Your task to perform on an android device: check storage Image 0: 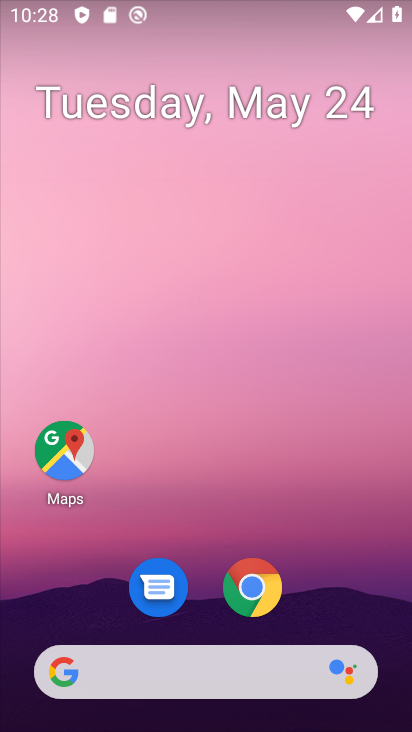
Step 0: click (344, 221)
Your task to perform on an android device: check storage Image 1: 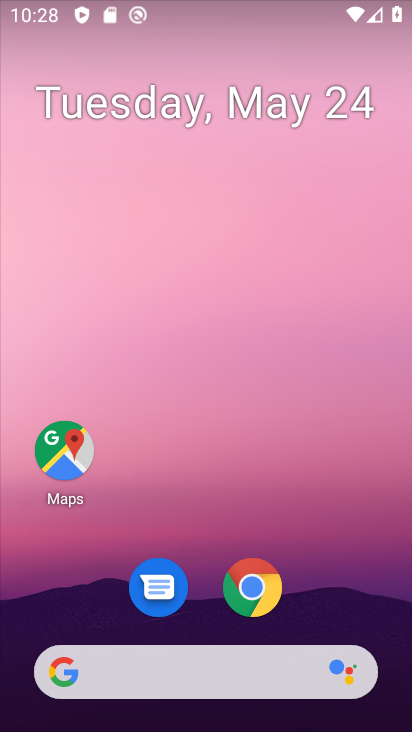
Step 1: drag from (329, 689) to (206, 121)
Your task to perform on an android device: check storage Image 2: 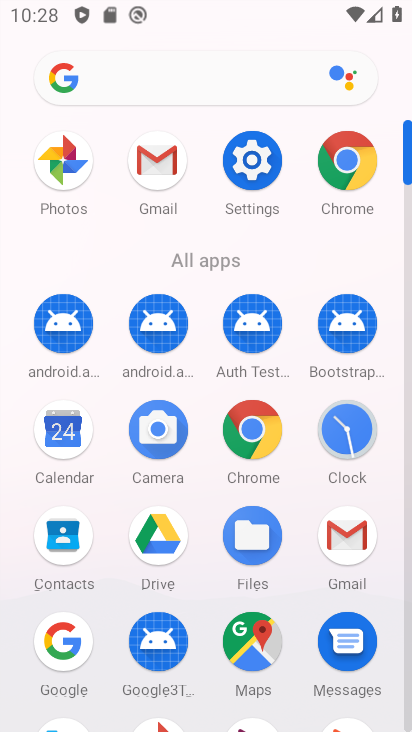
Step 2: click (249, 168)
Your task to perform on an android device: check storage Image 3: 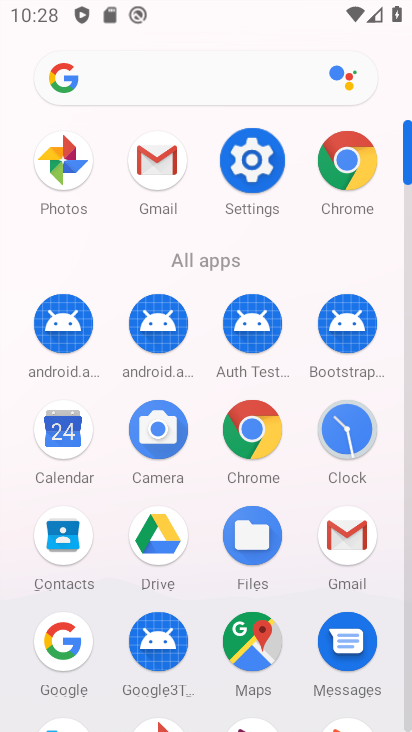
Step 3: click (251, 164)
Your task to perform on an android device: check storage Image 4: 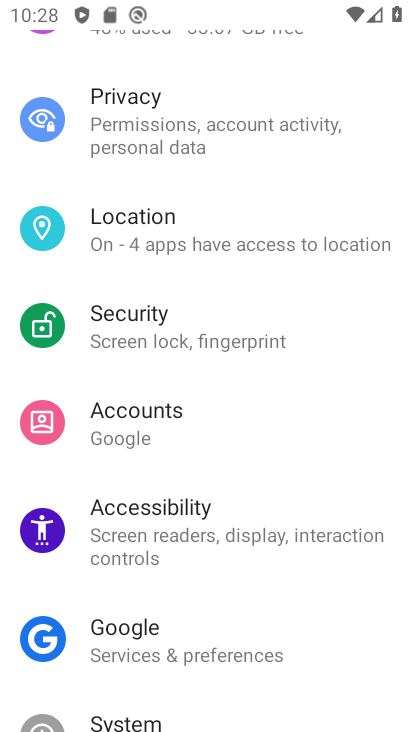
Step 4: drag from (160, 543) to (132, 255)
Your task to perform on an android device: check storage Image 5: 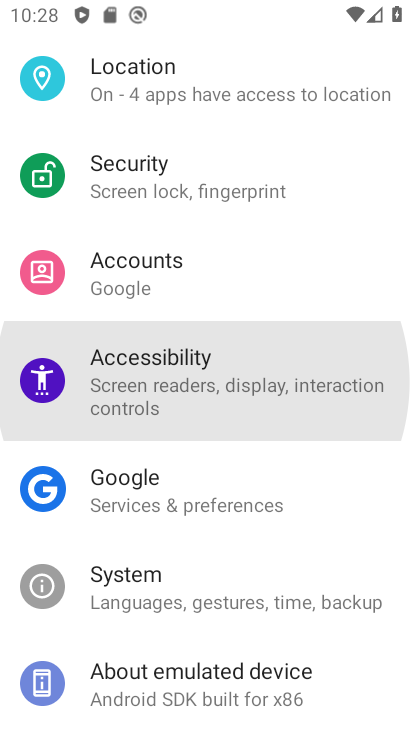
Step 5: drag from (151, 487) to (151, 267)
Your task to perform on an android device: check storage Image 6: 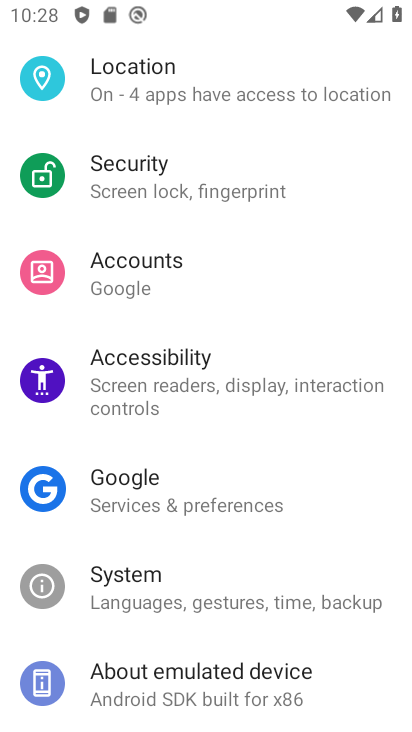
Step 6: drag from (149, 195) to (126, 579)
Your task to perform on an android device: check storage Image 7: 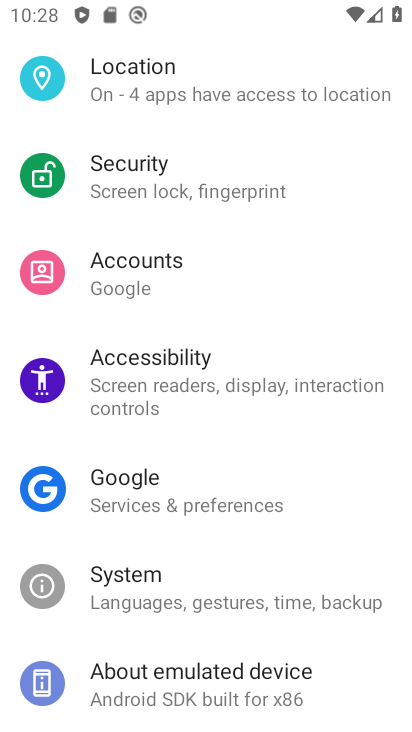
Step 7: drag from (138, 292) to (193, 628)
Your task to perform on an android device: check storage Image 8: 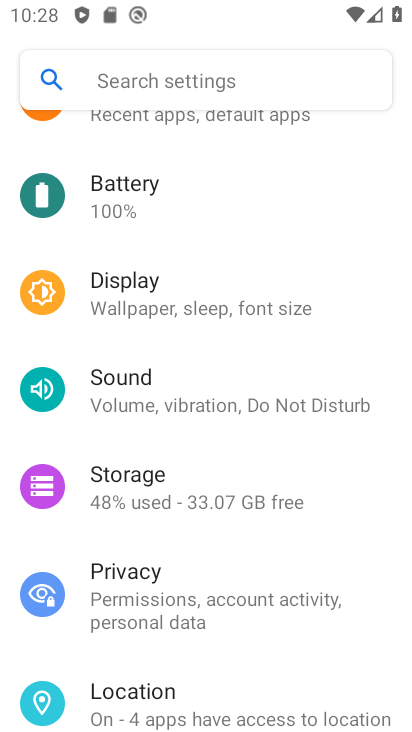
Step 8: drag from (146, 340) to (201, 627)
Your task to perform on an android device: check storage Image 9: 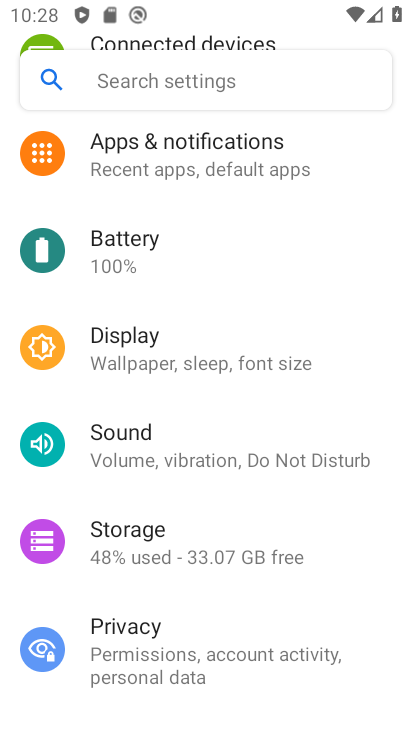
Step 9: drag from (131, 198) to (185, 563)
Your task to perform on an android device: check storage Image 10: 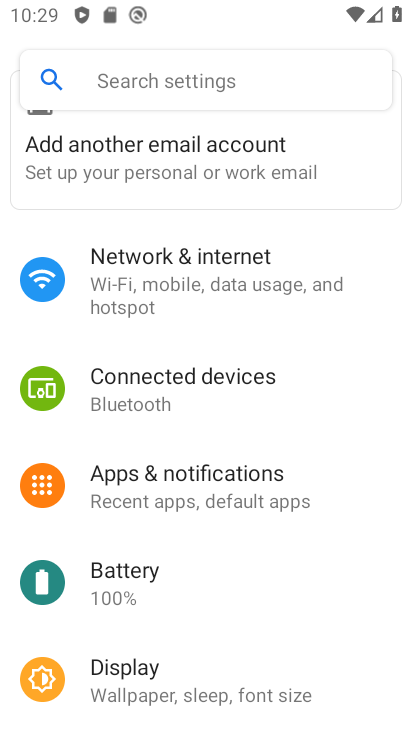
Step 10: drag from (166, 519) to (156, 169)
Your task to perform on an android device: check storage Image 11: 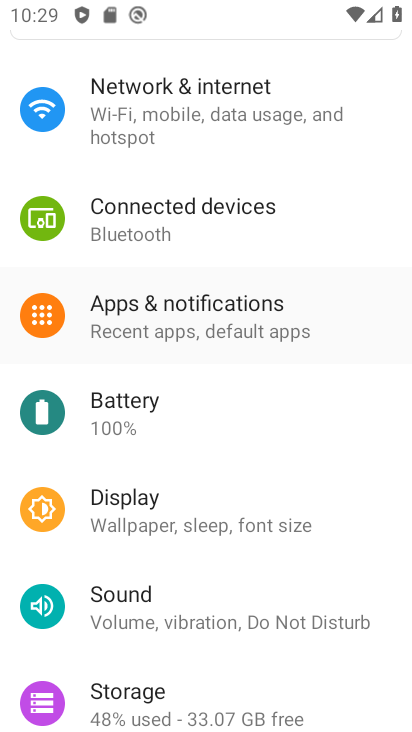
Step 11: drag from (188, 484) to (212, 122)
Your task to perform on an android device: check storage Image 12: 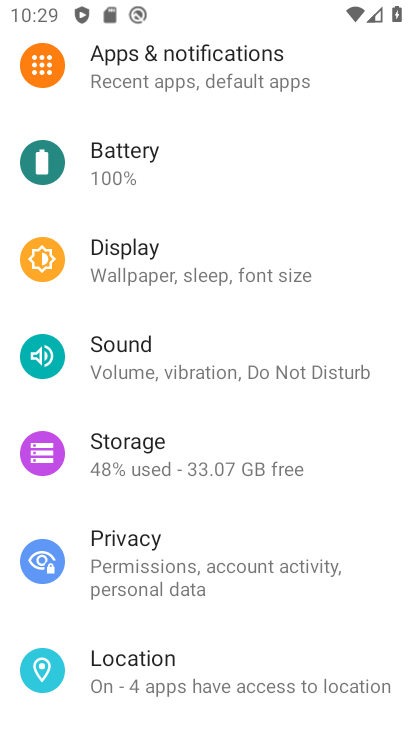
Step 12: click (135, 446)
Your task to perform on an android device: check storage Image 13: 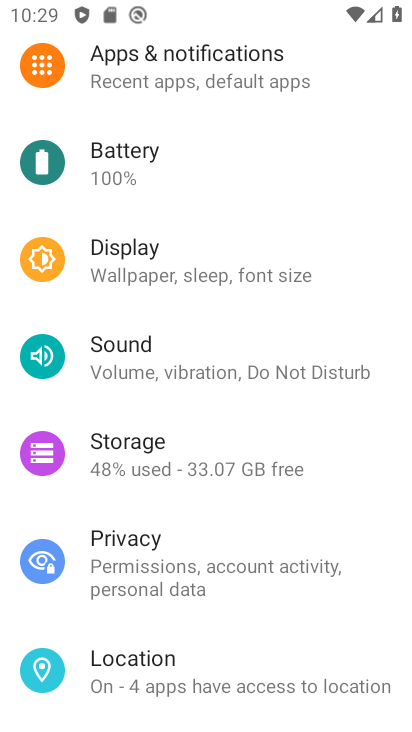
Step 13: click (135, 446)
Your task to perform on an android device: check storage Image 14: 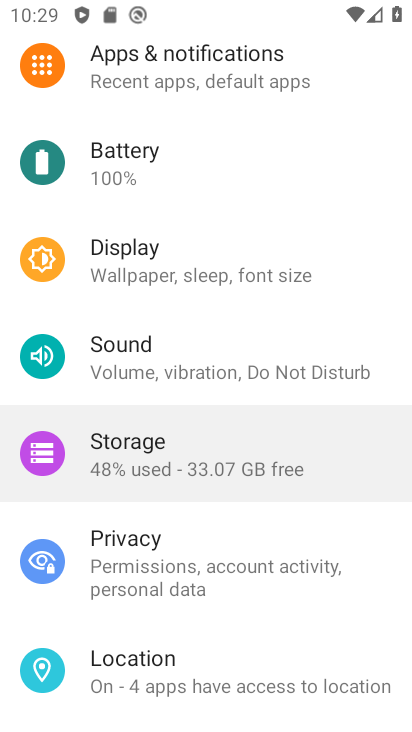
Step 14: click (136, 443)
Your task to perform on an android device: check storage Image 15: 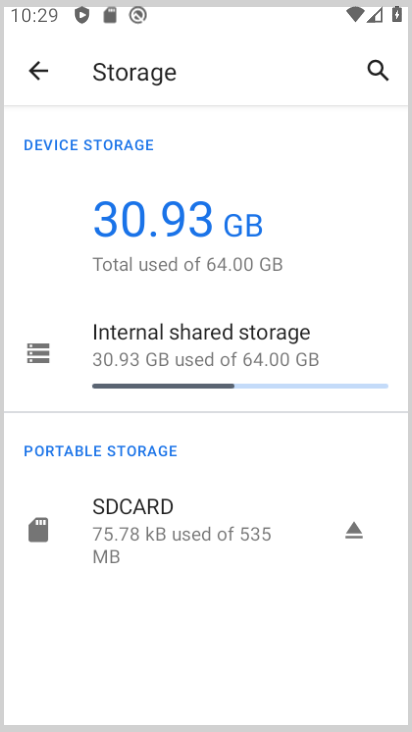
Step 15: click (136, 441)
Your task to perform on an android device: check storage Image 16: 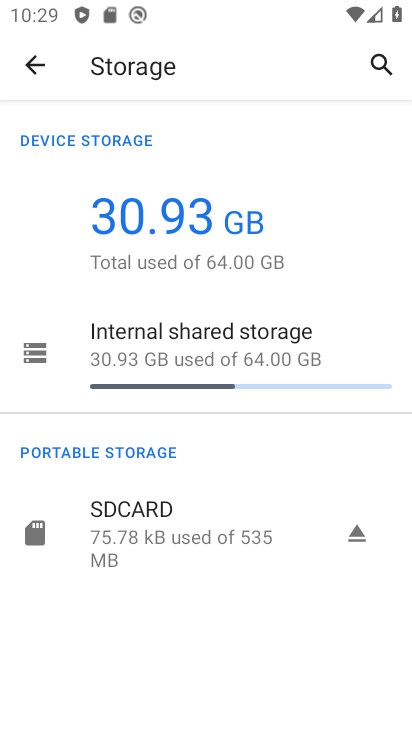
Step 16: task complete